Your task to perform on an android device: change the upload size in google photos Image 0: 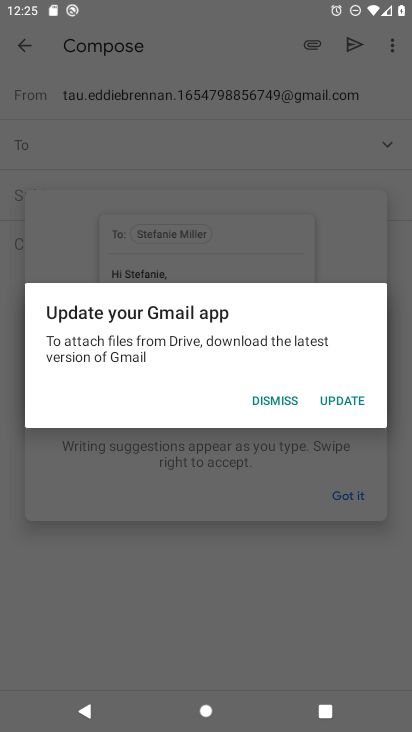
Step 0: press home button
Your task to perform on an android device: change the upload size in google photos Image 1: 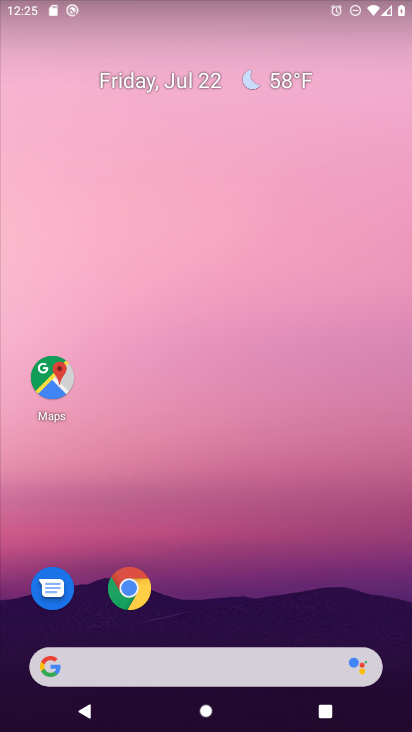
Step 1: drag from (327, 571) to (228, 28)
Your task to perform on an android device: change the upload size in google photos Image 2: 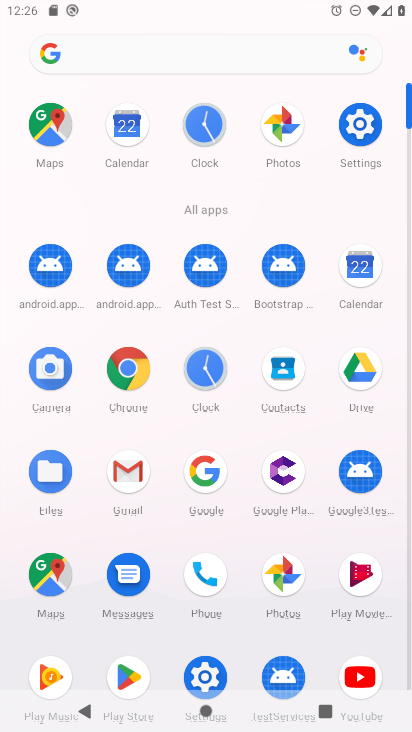
Step 2: click (279, 126)
Your task to perform on an android device: change the upload size in google photos Image 3: 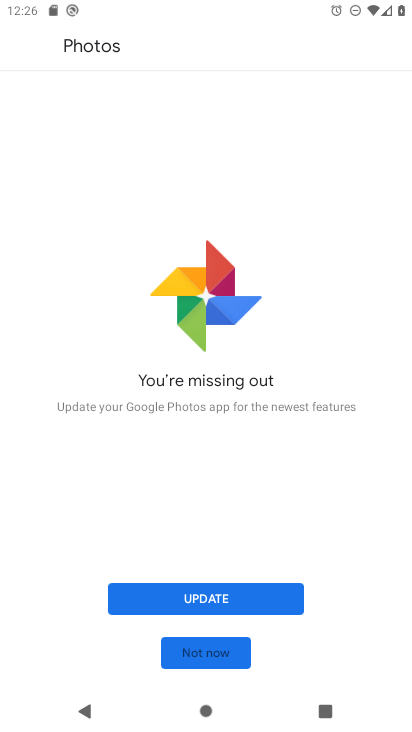
Step 3: click (203, 604)
Your task to perform on an android device: change the upload size in google photos Image 4: 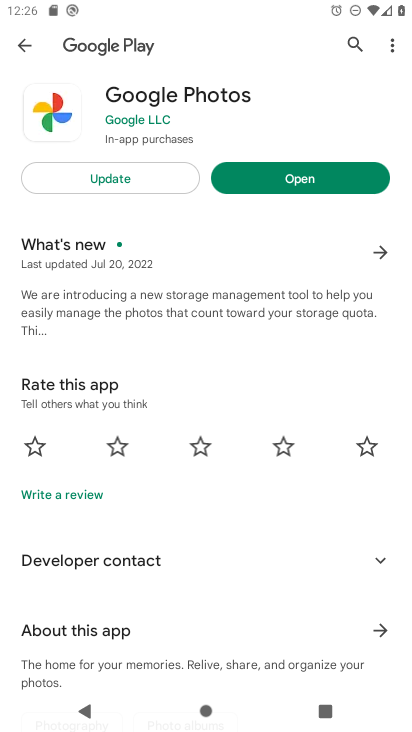
Step 4: click (170, 174)
Your task to perform on an android device: change the upload size in google photos Image 5: 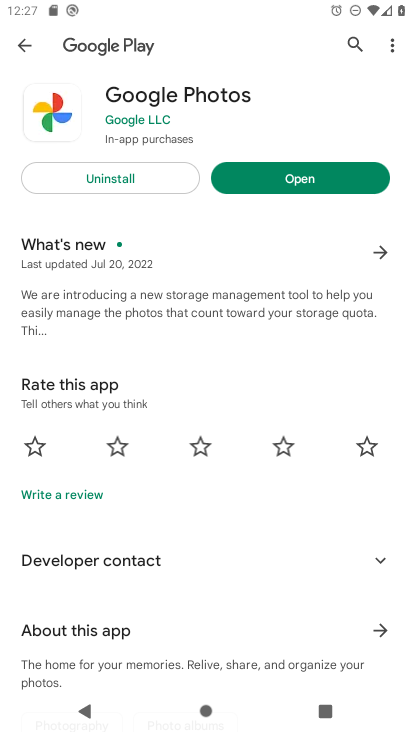
Step 5: click (318, 182)
Your task to perform on an android device: change the upload size in google photos Image 6: 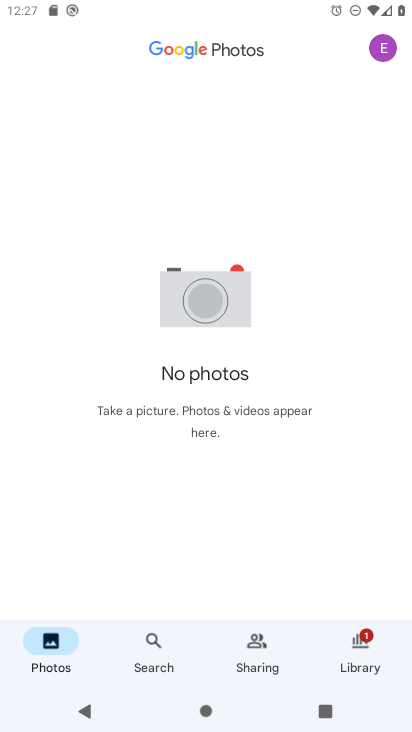
Step 6: click (381, 40)
Your task to perform on an android device: change the upload size in google photos Image 7: 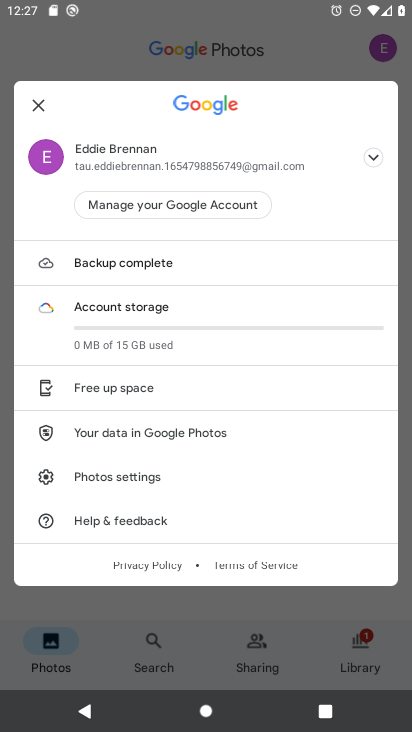
Step 7: click (162, 470)
Your task to perform on an android device: change the upload size in google photos Image 8: 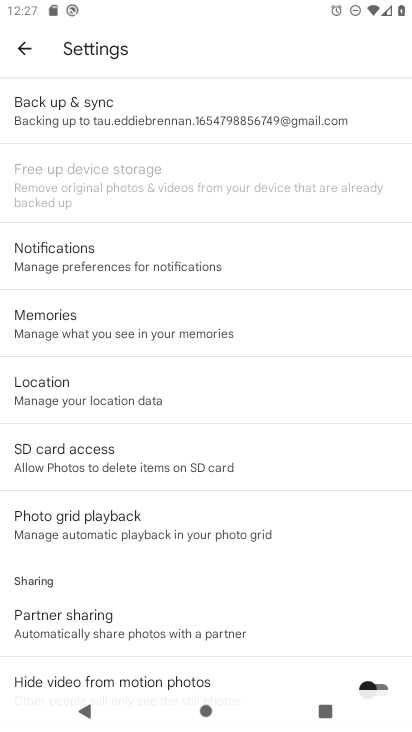
Step 8: click (176, 116)
Your task to perform on an android device: change the upload size in google photos Image 9: 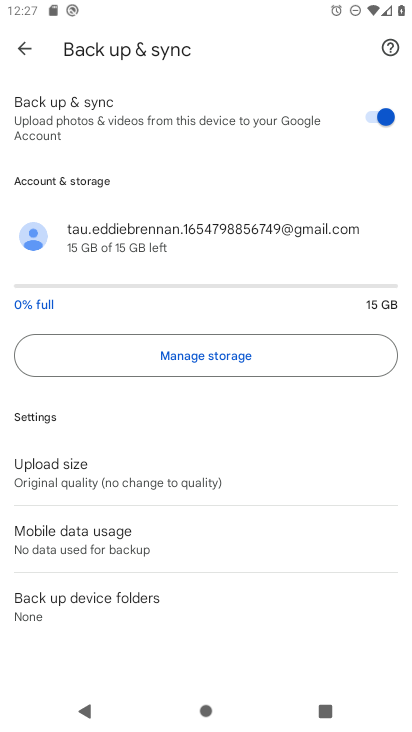
Step 9: click (71, 481)
Your task to perform on an android device: change the upload size in google photos Image 10: 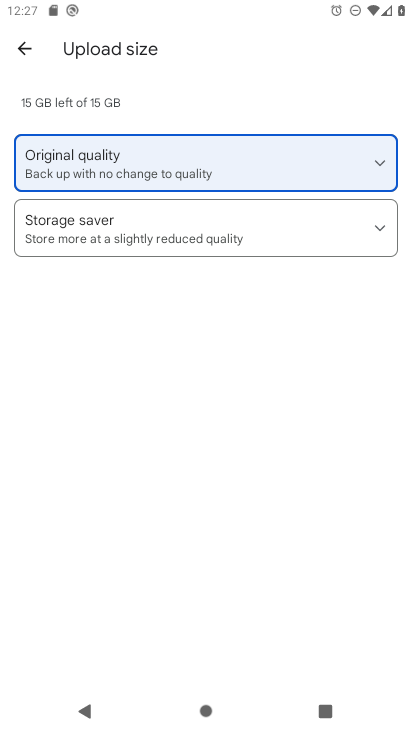
Step 10: click (219, 214)
Your task to perform on an android device: change the upload size in google photos Image 11: 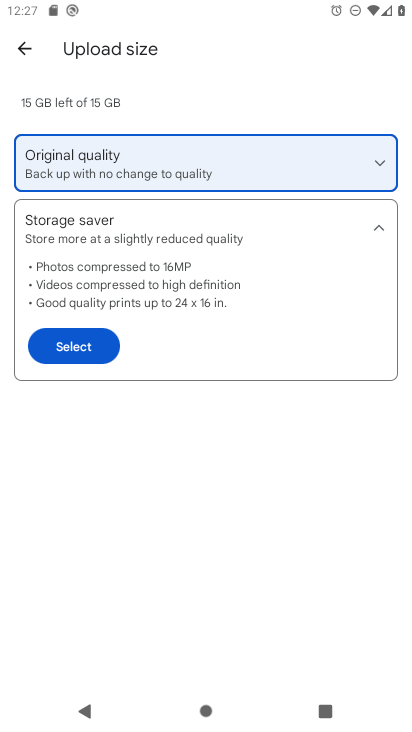
Step 11: click (85, 348)
Your task to perform on an android device: change the upload size in google photos Image 12: 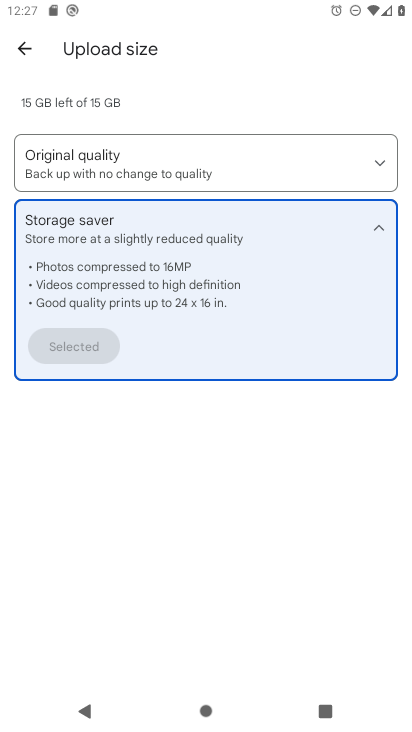
Step 12: task complete